Your task to perform on an android device: open sync settings in chrome Image 0: 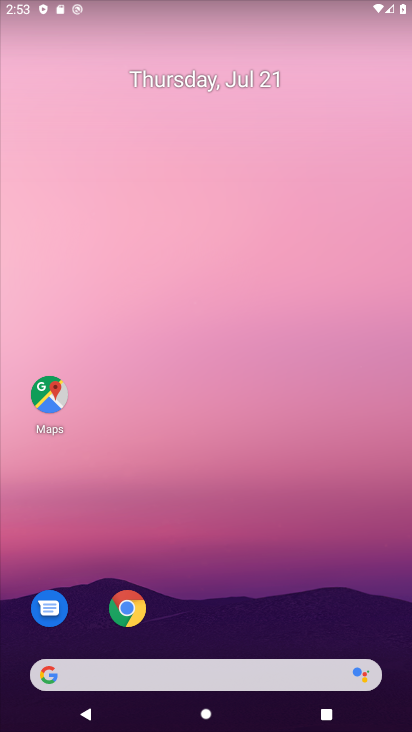
Step 0: drag from (286, 601) to (208, 0)
Your task to perform on an android device: open sync settings in chrome Image 1: 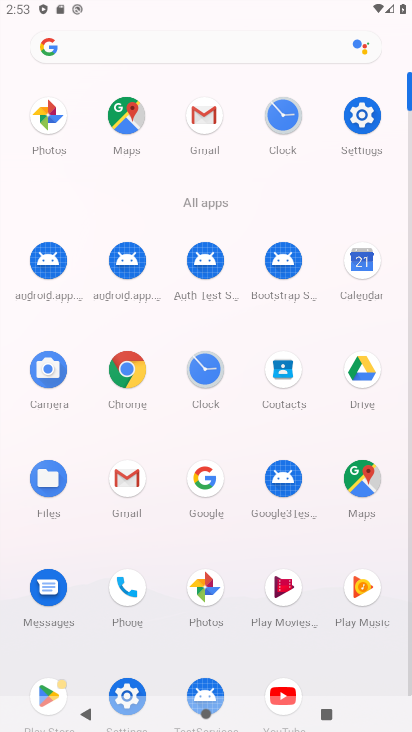
Step 1: click (123, 368)
Your task to perform on an android device: open sync settings in chrome Image 2: 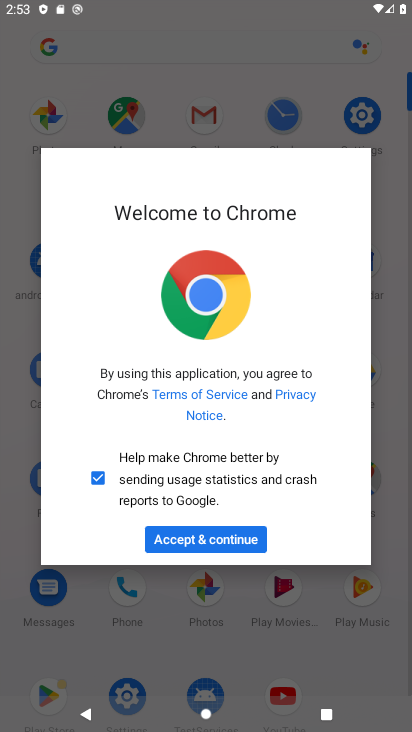
Step 2: click (267, 535)
Your task to perform on an android device: open sync settings in chrome Image 3: 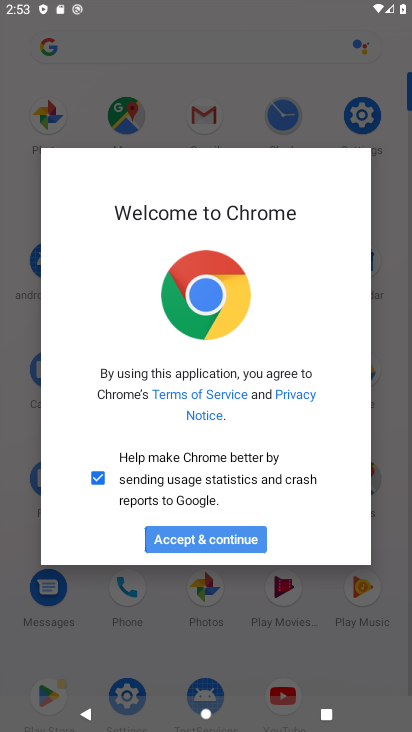
Step 3: click (204, 545)
Your task to perform on an android device: open sync settings in chrome Image 4: 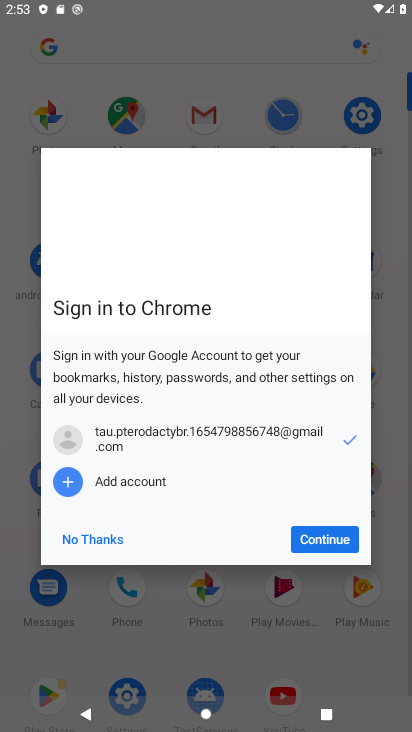
Step 4: click (330, 540)
Your task to perform on an android device: open sync settings in chrome Image 5: 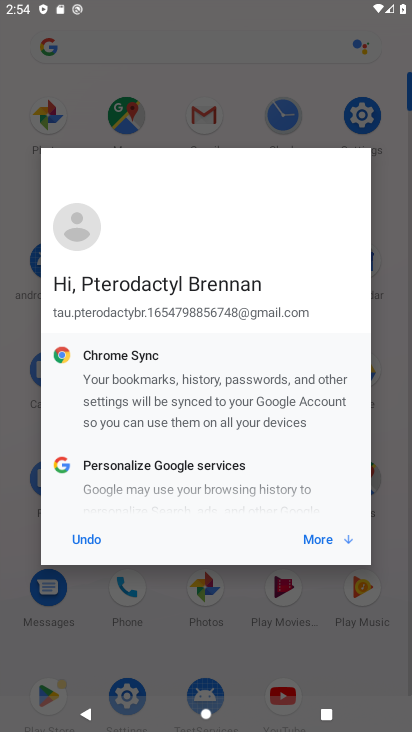
Step 5: click (330, 540)
Your task to perform on an android device: open sync settings in chrome Image 6: 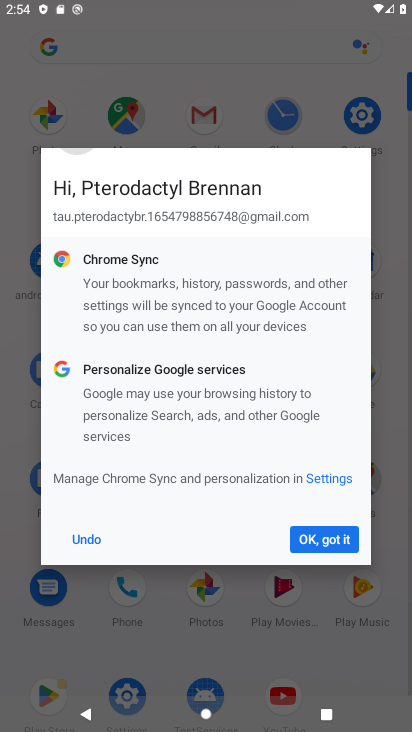
Step 6: click (330, 540)
Your task to perform on an android device: open sync settings in chrome Image 7: 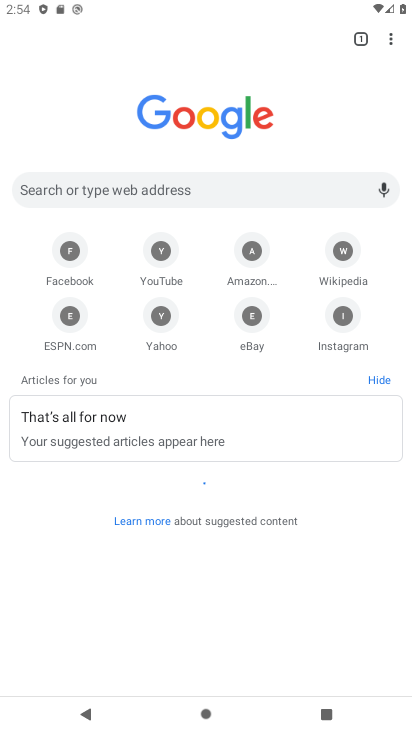
Step 7: drag from (396, 36) to (248, 327)
Your task to perform on an android device: open sync settings in chrome Image 8: 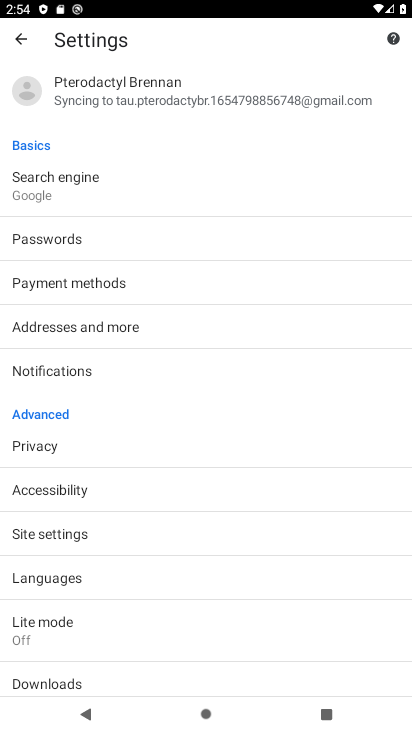
Step 8: click (66, 533)
Your task to perform on an android device: open sync settings in chrome Image 9: 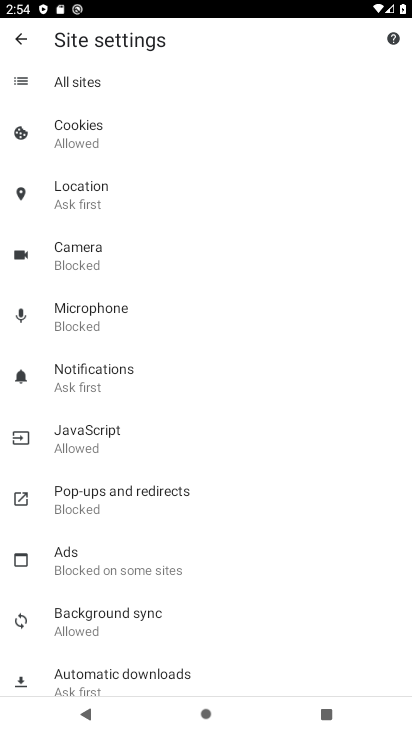
Step 9: drag from (137, 611) to (146, 208)
Your task to perform on an android device: open sync settings in chrome Image 10: 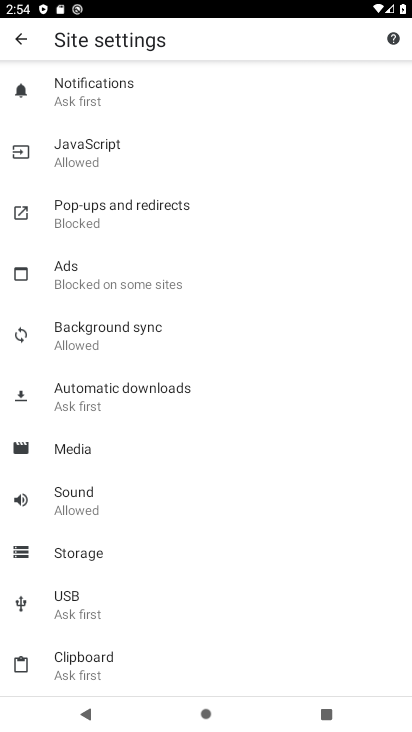
Step 10: drag from (144, 605) to (150, 190)
Your task to perform on an android device: open sync settings in chrome Image 11: 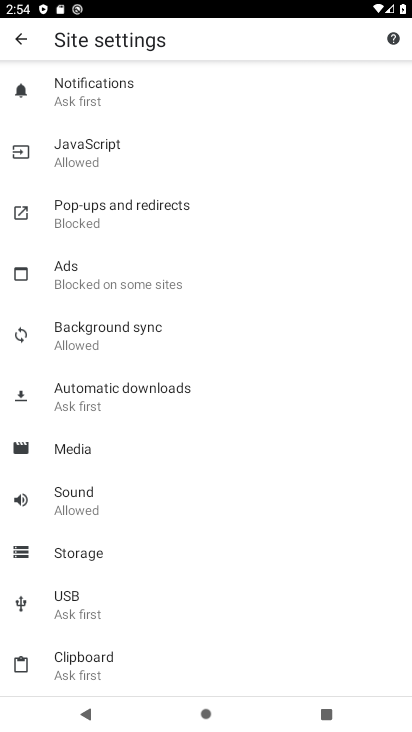
Step 11: drag from (149, 198) to (167, 628)
Your task to perform on an android device: open sync settings in chrome Image 12: 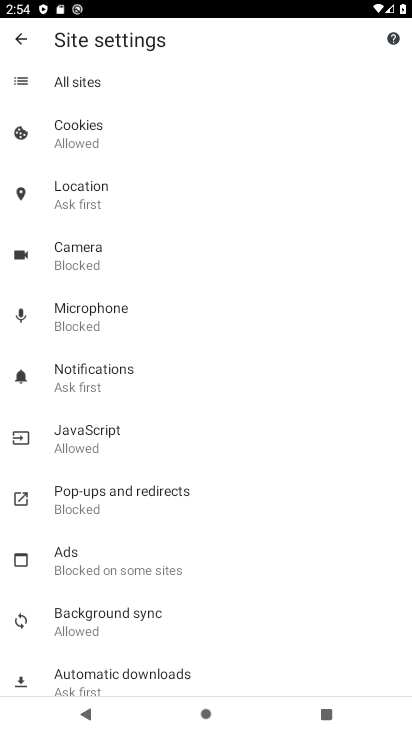
Step 12: click (12, 30)
Your task to perform on an android device: open sync settings in chrome Image 13: 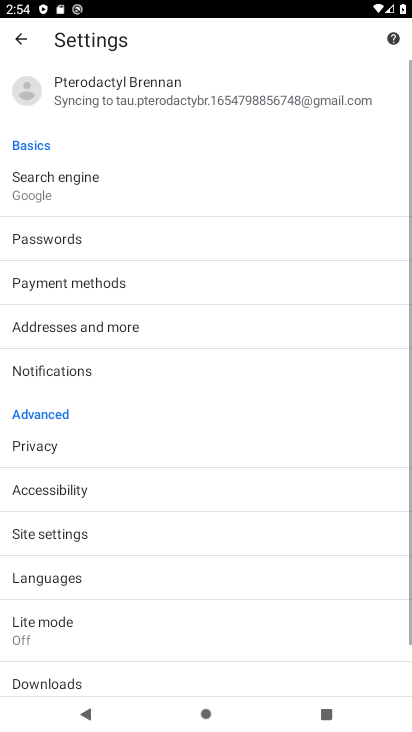
Step 13: click (203, 90)
Your task to perform on an android device: open sync settings in chrome Image 14: 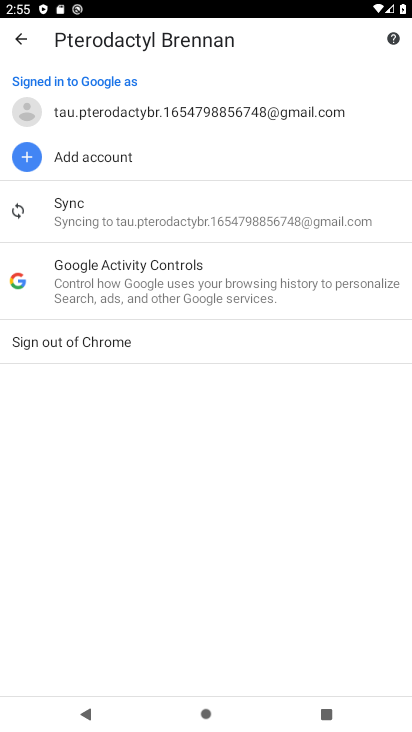
Step 14: click (92, 230)
Your task to perform on an android device: open sync settings in chrome Image 15: 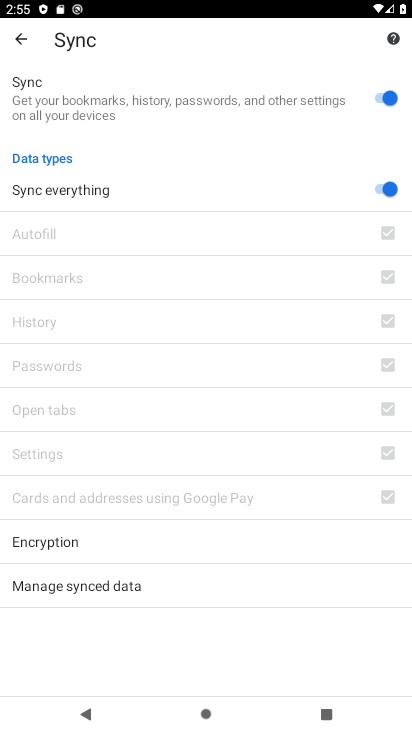
Step 15: task complete